Your task to perform on an android device: Open CNN.com Image 0: 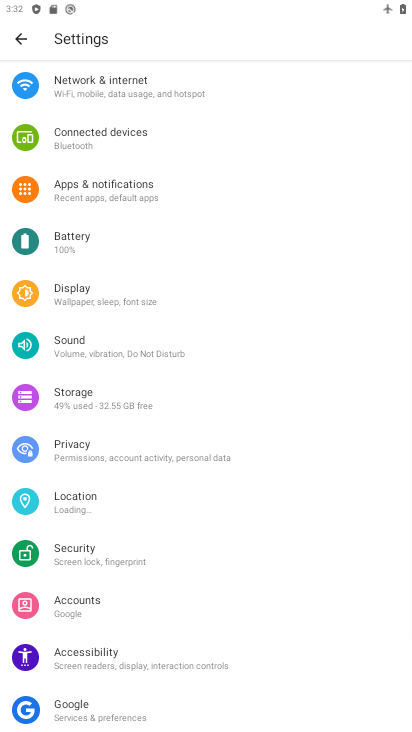
Step 0: press home button
Your task to perform on an android device: Open CNN.com Image 1: 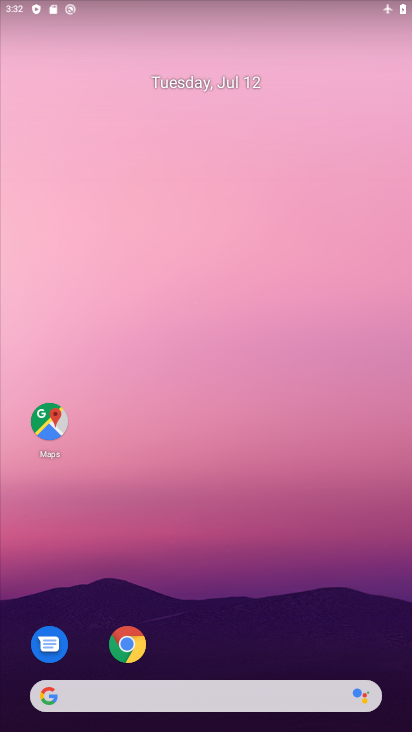
Step 1: click (123, 644)
Your task to perform on an android device: Open CNN.com Image 2: 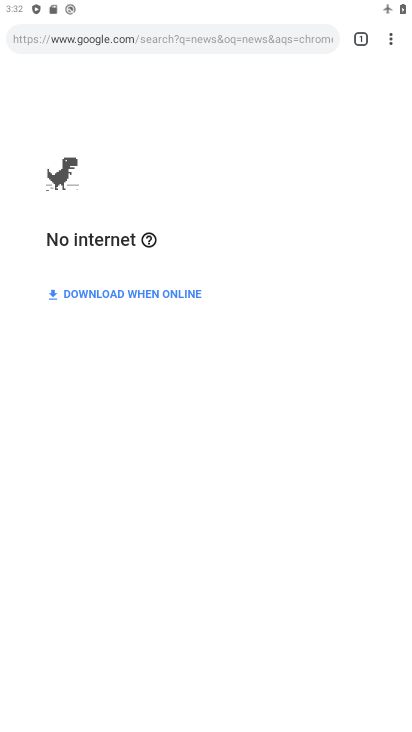
Step 2: click (235, 33)
Your task to perform on an android device: Open CNN.com Image 3: 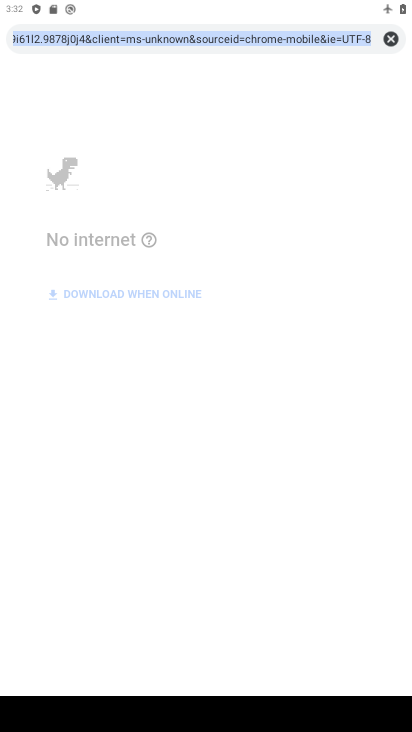
Step 3: type "cnn.com"
Your task to perform on an android device: Open CNN.com Image 4: 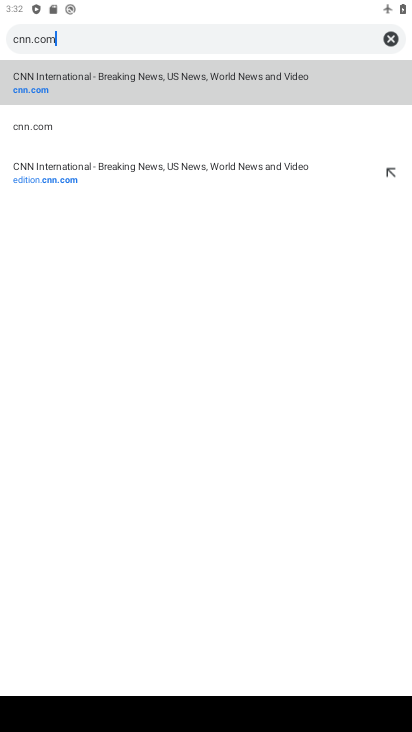
Step 4: click (30, 86)
Your task to perform on an android device: Open CNN.com Image 5: 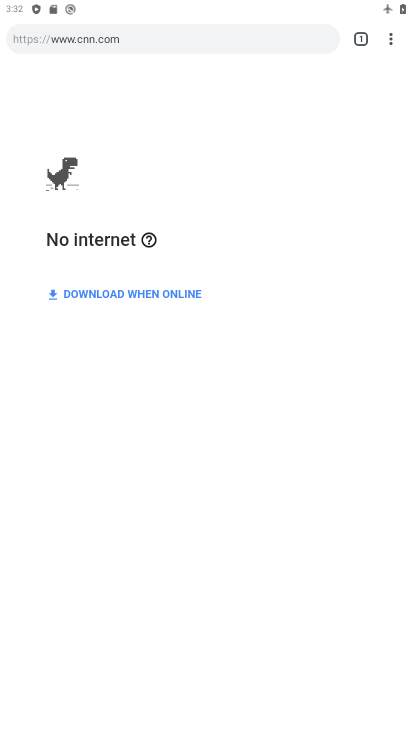
Step 5: task complete